Your task to perform on an android device: Go to notification settings Image 0: 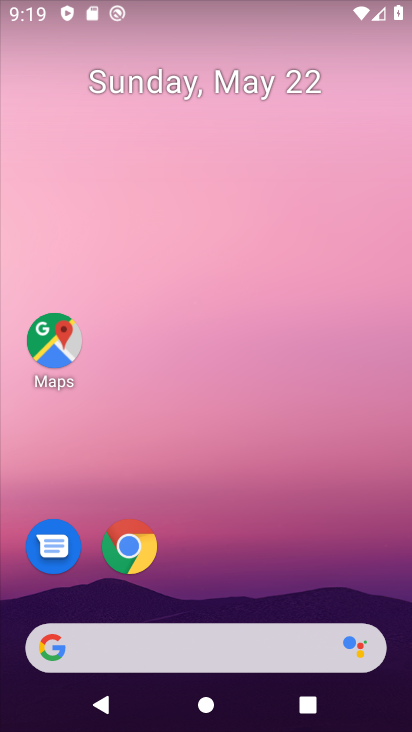
Step 0: drag from (241, 601) to (165, 2)
Your task to perform on an android device: Go to notification settings Image 1: 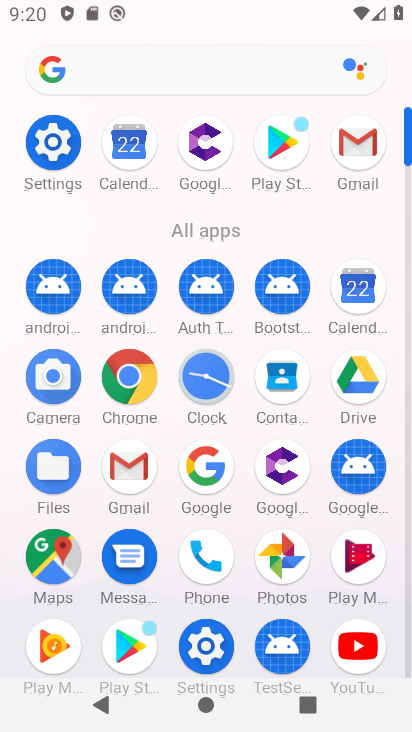
Step 1: click (57, 140)
Your task to perform on an android device: Go to notification settings Image 2: 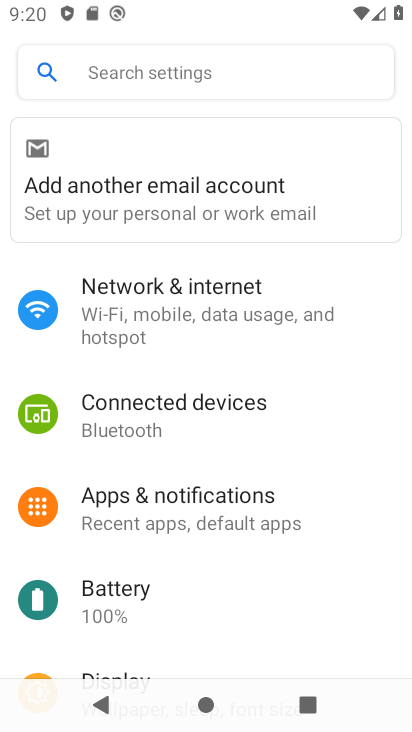
Step 2: click (209, 514)
Your task to perform on an android device: Go to notification settings Image 3: 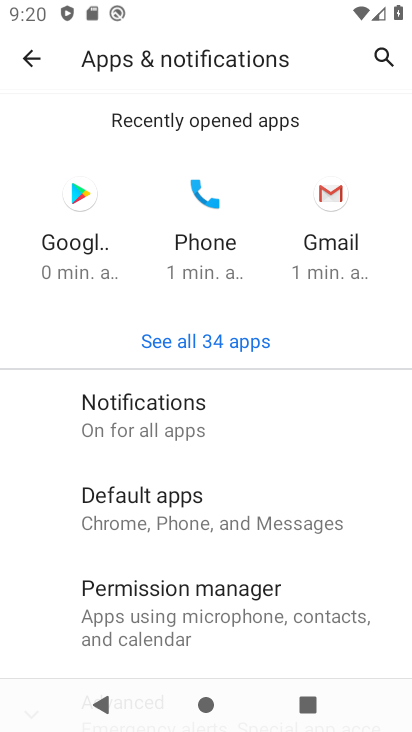
Step 3: task complete